Your task to perform on an android device: Is it going to rain today? Image 0: 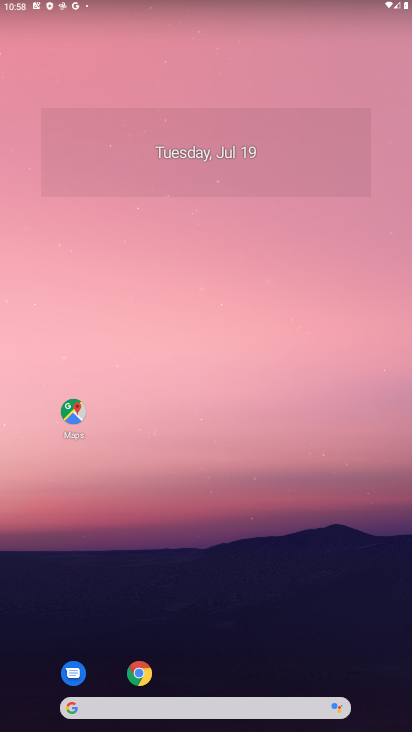
Step 0: drag from (274, 660) to (229, 2)
Your task to perform on an android device: Is it going to rain today? Image 1: 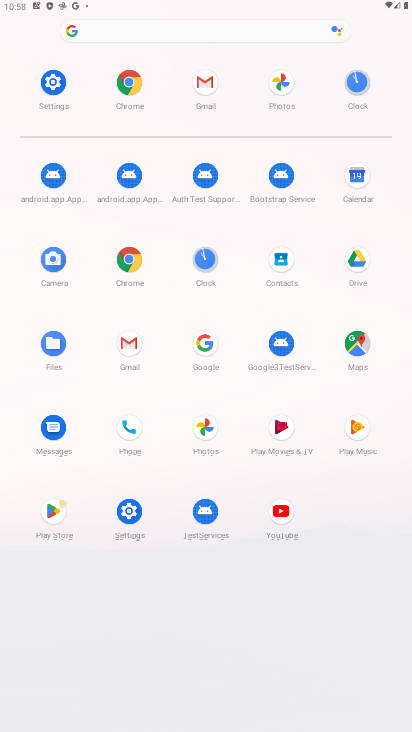
Step 1: click (189, 38)
Your task to perform on an android device: Is it going to rain today? Image 2: 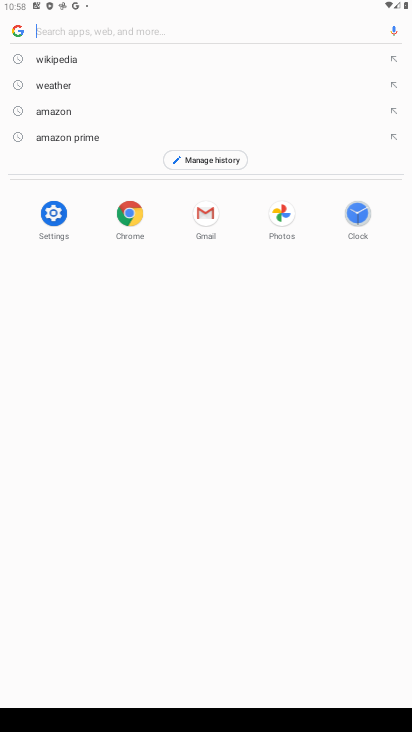
Step 2: type "rain"
Your task to perform on an android device: Is it going to rain today? Image 3: 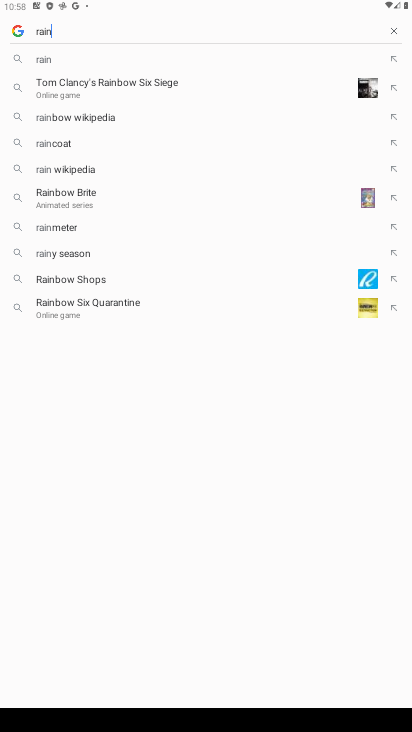
Step 3: click (57, 60)
Your task to perform on an android device: Is it going to rain today? Image 4: 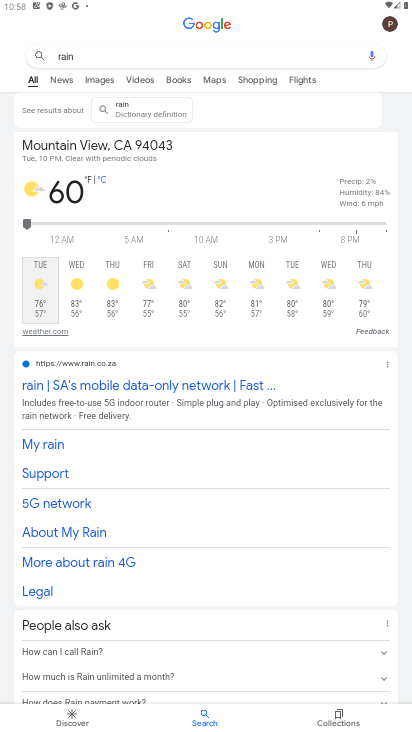
Step 4: task complete